Your task to perform on an android device: Open the stopwatch Image 0: 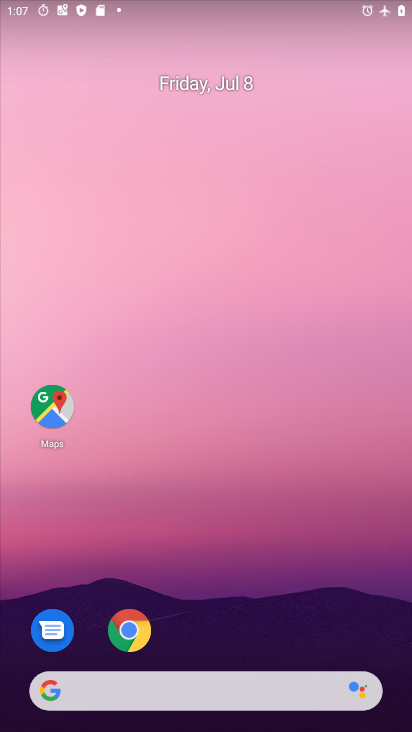
Step 0: drag from (195, 633) to (195, 186)
Your task to perform on an android device: Open the stopwatch Image 1: 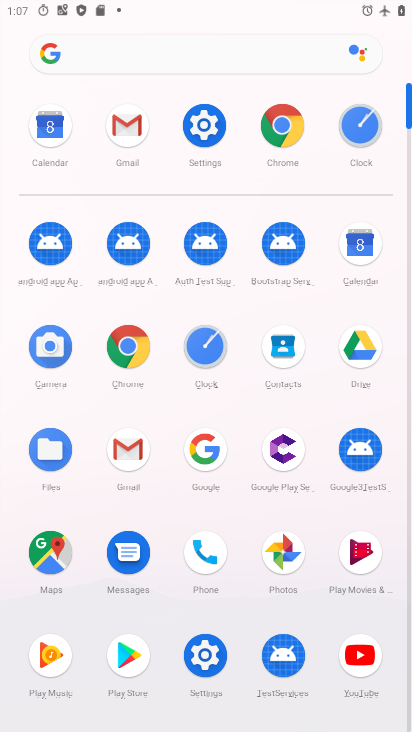
Step 1: click (345, 132)
Your task to perform on an android device: Open the stopwatch Image 2: 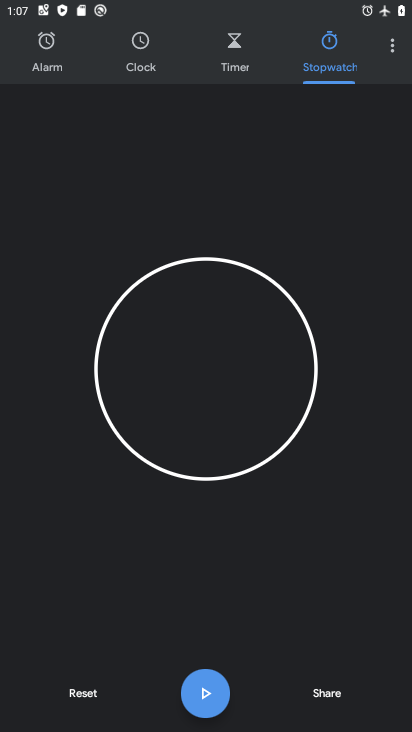
Step 2: task complete